Your task to perform on an android device: Is it going to rain tomorrow? Image 0: 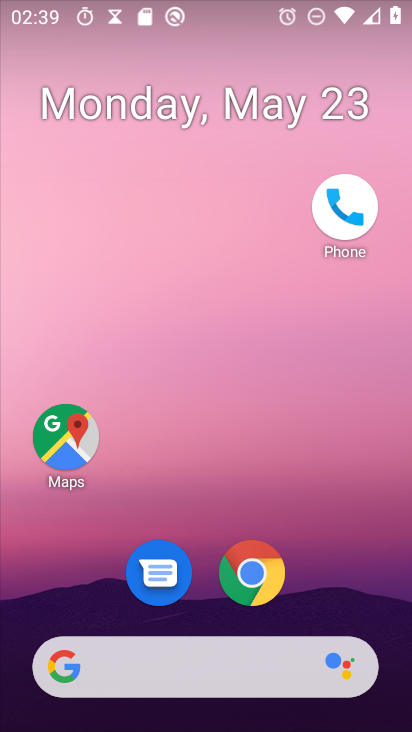
Step 0: press home button
Your task to perform on an android device: Is it going to rain tomorrow? Image 1: 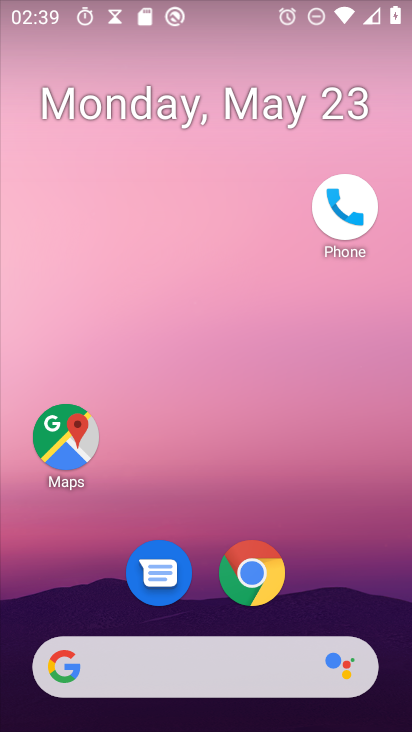
Step 1: click (71, 675)
Your task to perform on an android device: Is it going to rain tomorrow? Image 2: 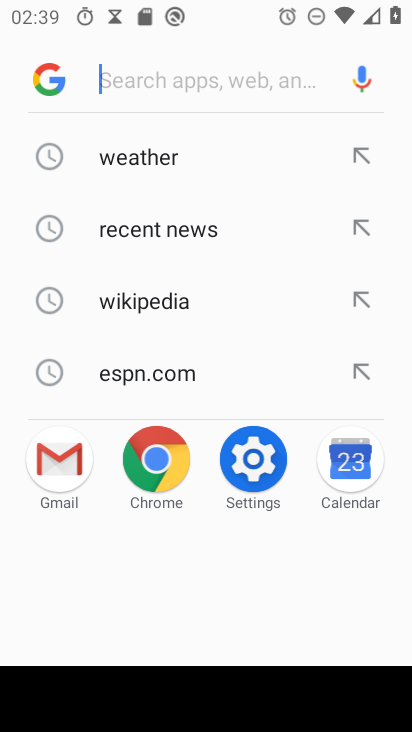
Step 2: click (159, 157)
Your task to perform on an android device: Is it going to rain tomorrow? Image 3: 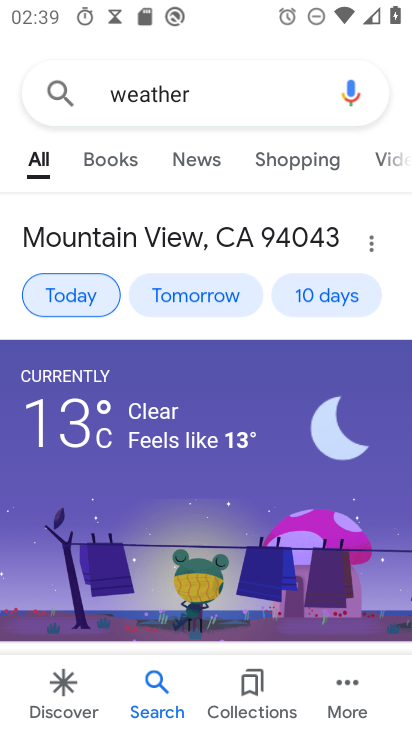
Step 3: task complete